Your task to perform on an android device: Open Chrome and go to settings Image 0: 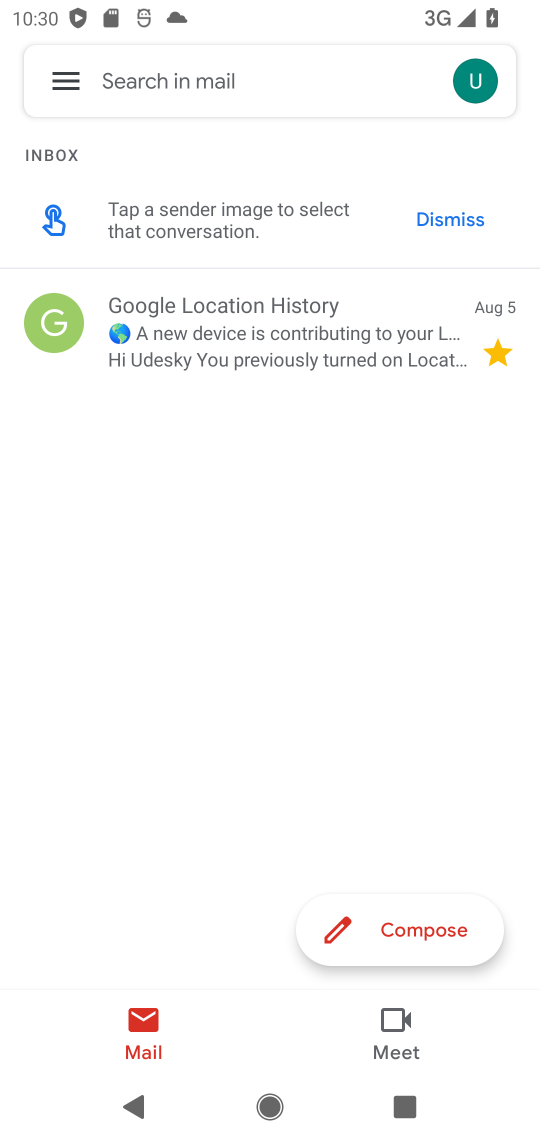
Step 0: press home button
Your task to perform on an android device: Open Chrome and go to settings Image 1: 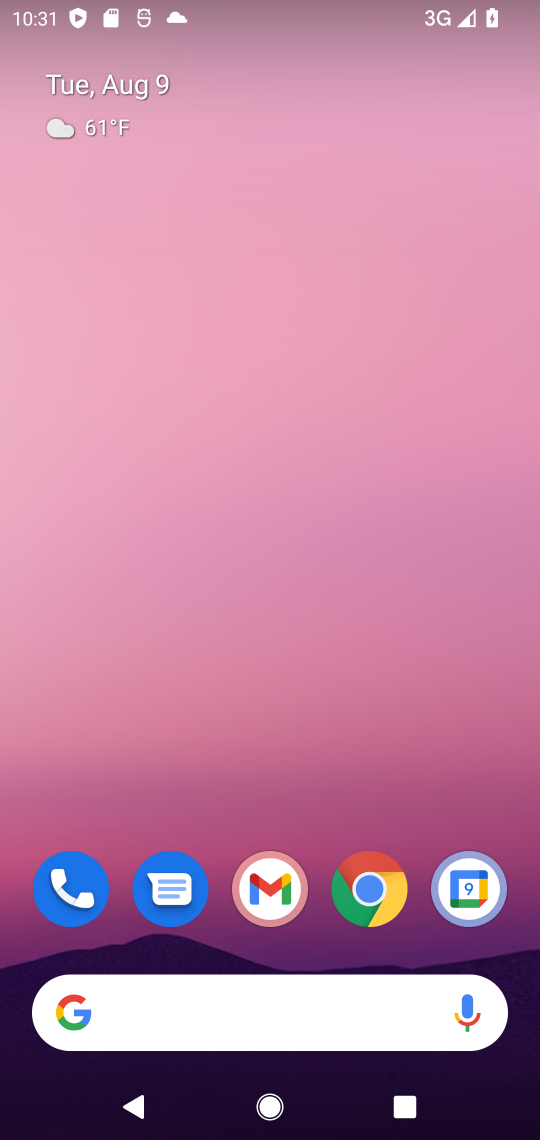
Step 1: drag from (202, 627) to (188, 11)
Your task to perform on an android device: Open Chrome and go to settings Image 2: 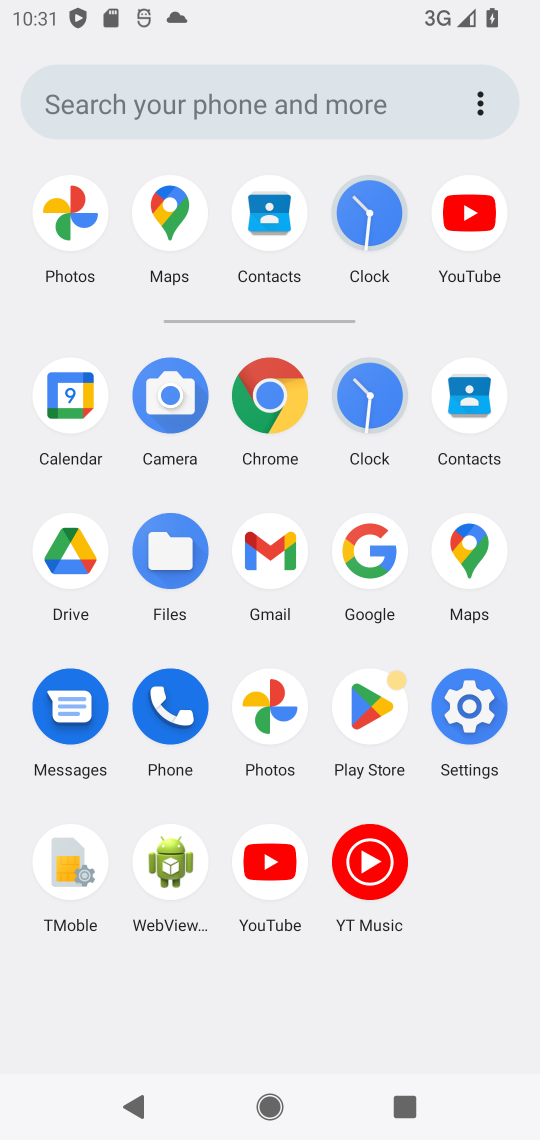
Step 2: click (279, 422)
Your task to perform on an android device: Open Chrome and go to settings Image 3: 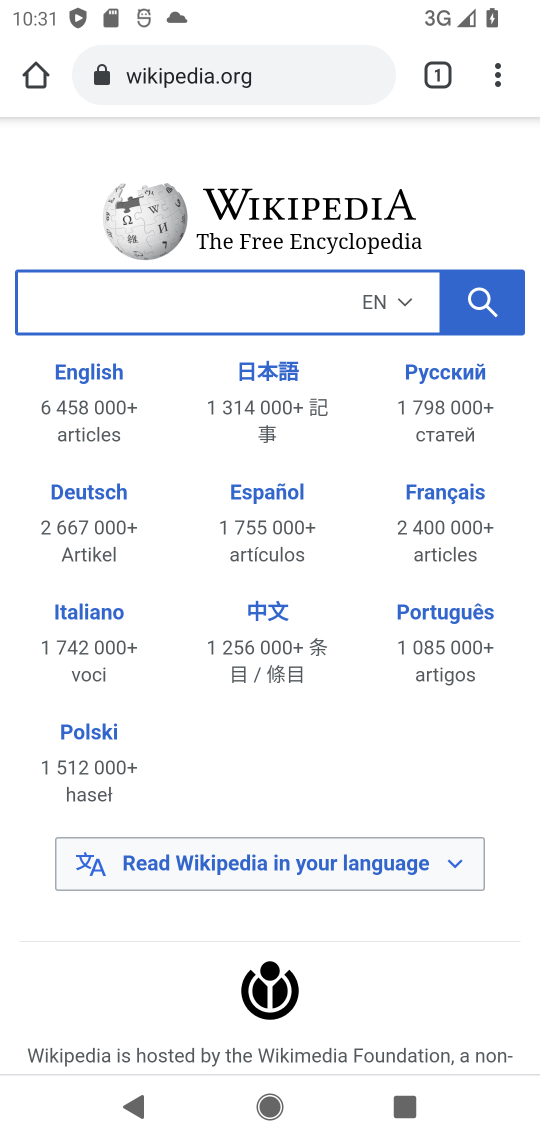
Step 3: task complete